Your task to perform on an android device: Go to battery settings Image 0: 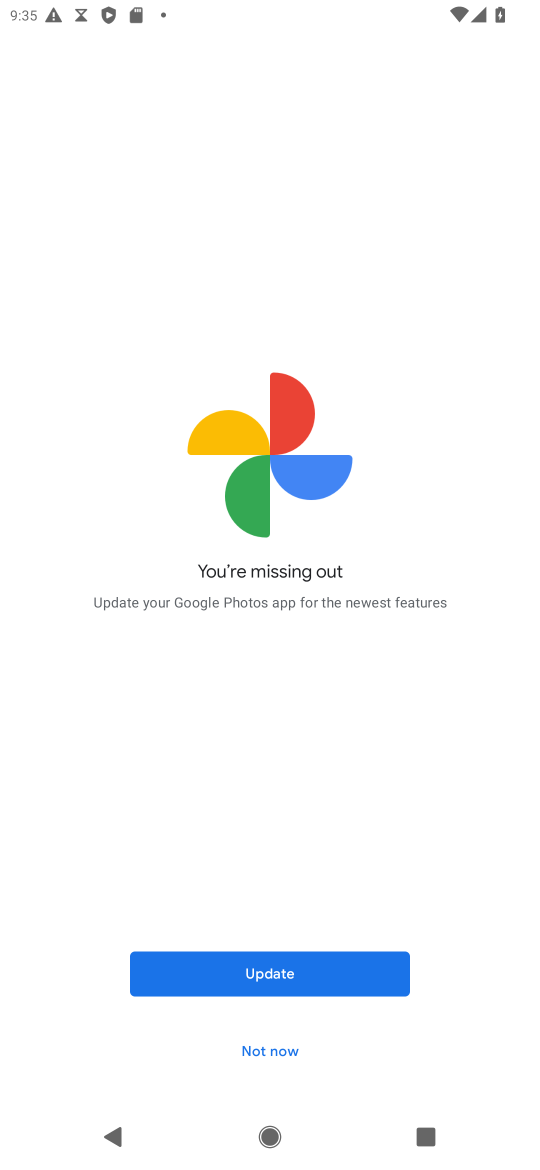
Step 0: press home button
Your task to perform on an android device: Go to battery settings Image 1: 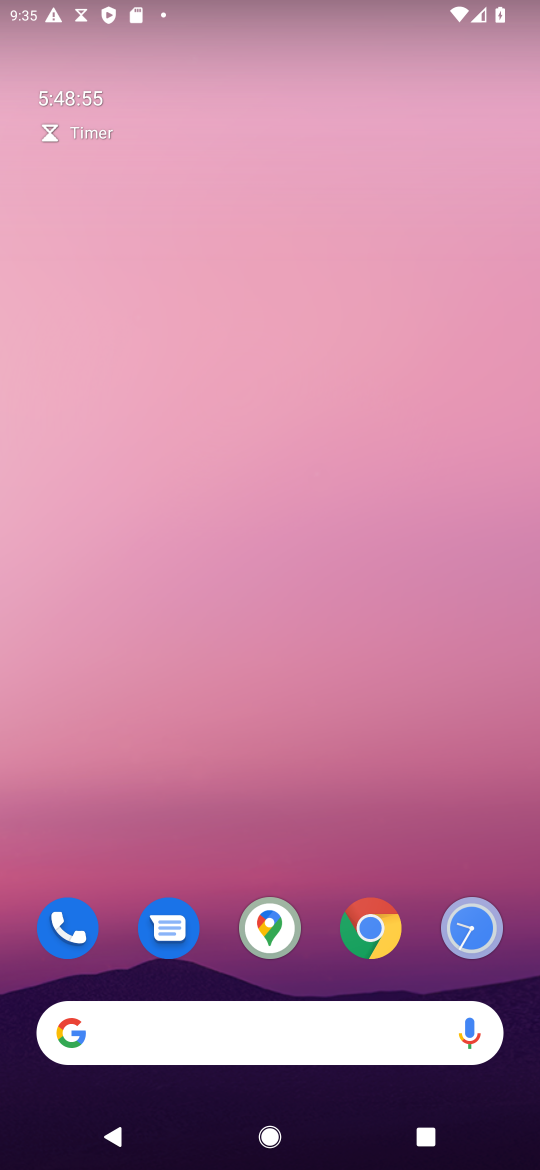
Step 1: drag from (305, 854) to (299, 127)
Your task to perform on an android device: Go to battery settings Image 2: 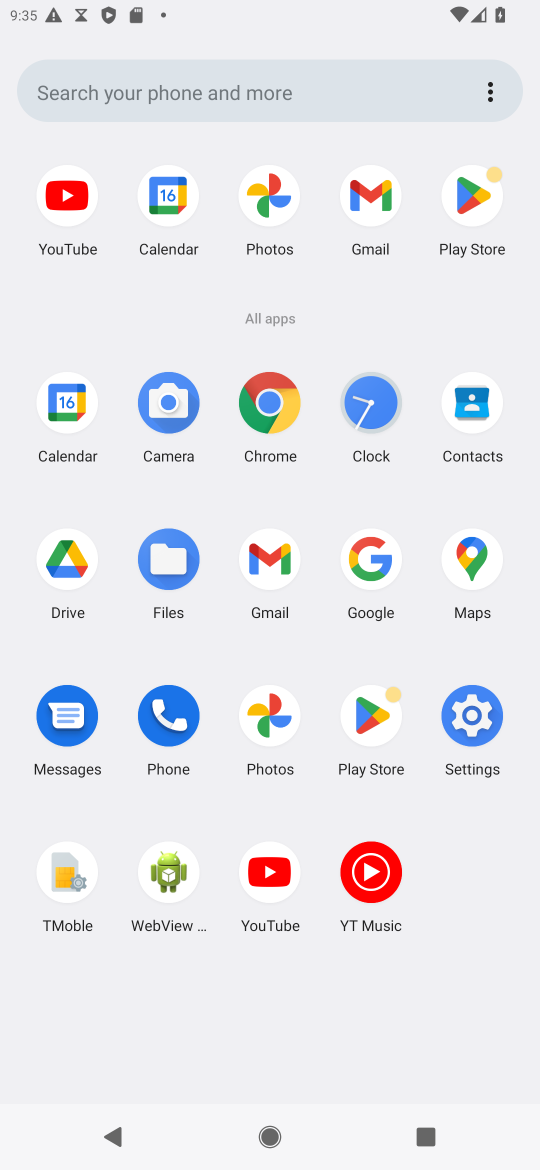
Step 2: click (473, 723)
Your task to perform on an android device: Go to battery settings Image 3: 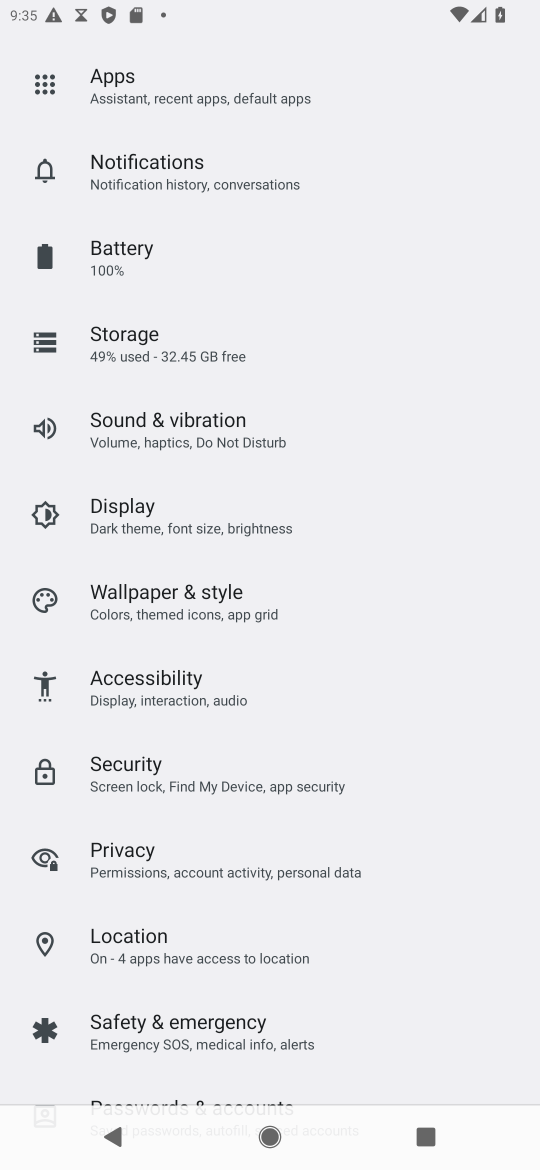
Step 3: click (127, 261)
Your task to perform on an android device: Go to battery settings Image 4: 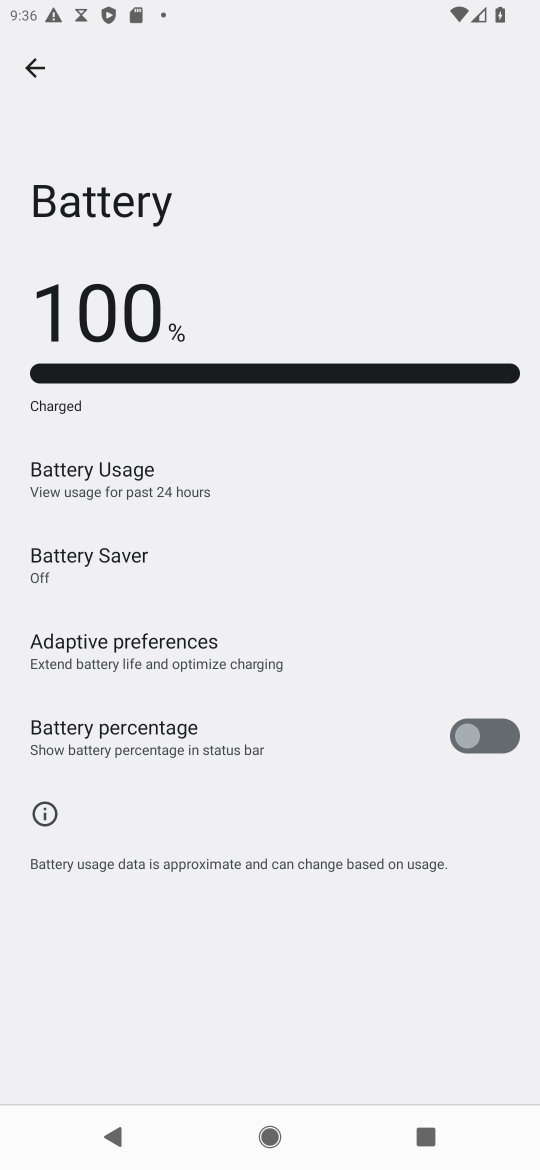
Step 4: task complete